Your task to perform on an android device: turn off smart reply in the gmail app Image 0: 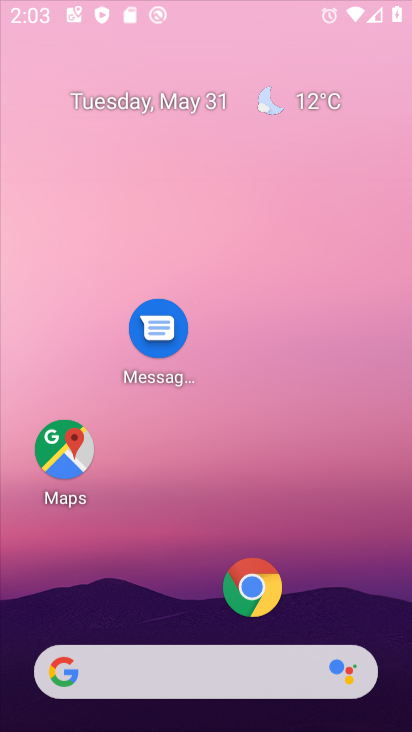
Step 0: click (225, 29)
Your task to perform on an android device: turn off smart reply in the gmail app Image 1: 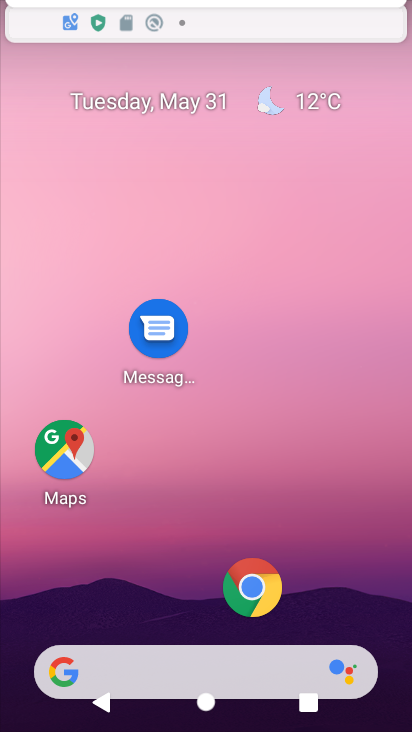
Step 1: drag from (182, 593) to (175, 150)
Your task to perform on an android device: turn off smart reply in the gmail app Image 2: 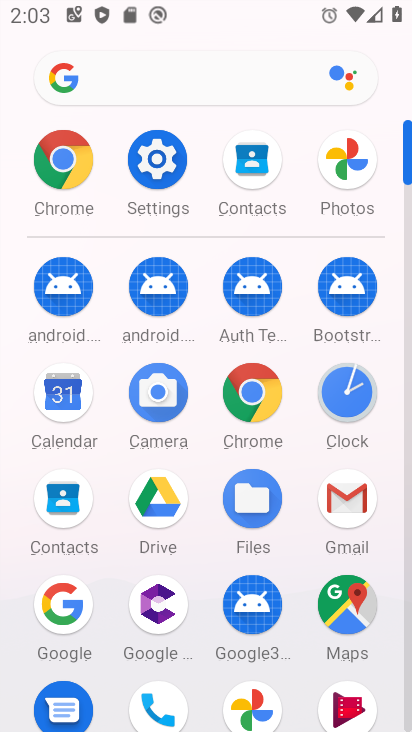
Step 2: click (342, 483)
Your task to perform on an android device: turn off smart reply in the gmail app Image 3: 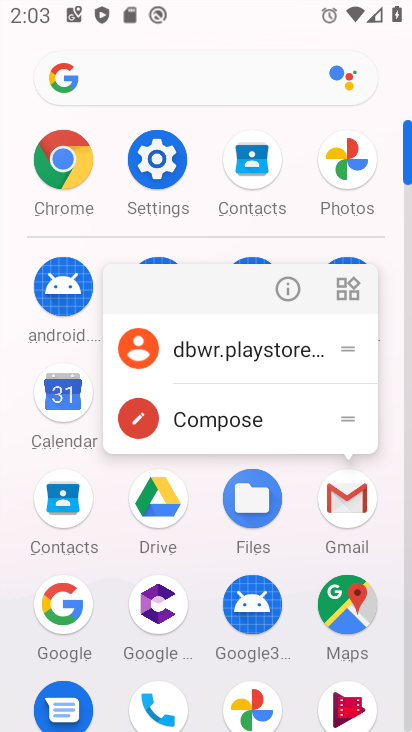
Step 3: click (290, 290)
Your task to perform on an android device: turn off smart reply in the gmail app Image 4: 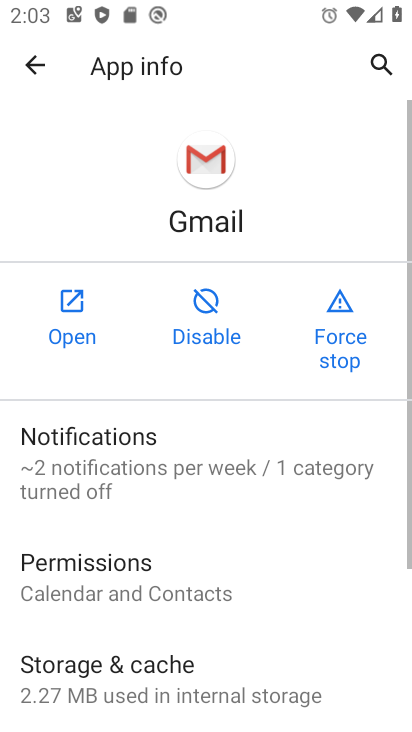
Step 4: click (71, 296)
Your task to perform on an android device: turn off smart reply in the gmail app Image 5: 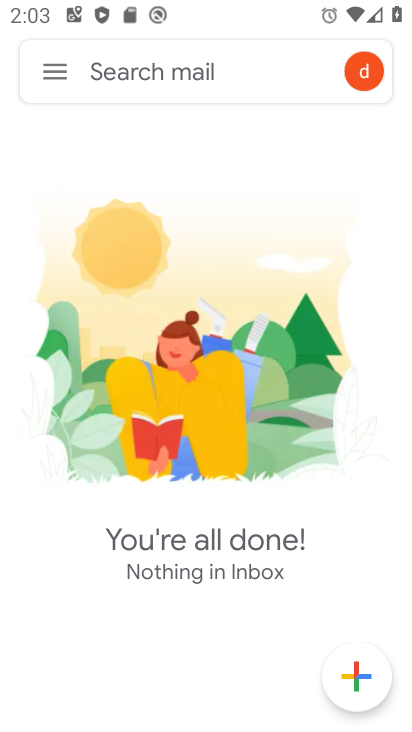
Step 5: click (51, 65)
Your task to perform on an android device: turn off smart reply in the gmail app Image 6: 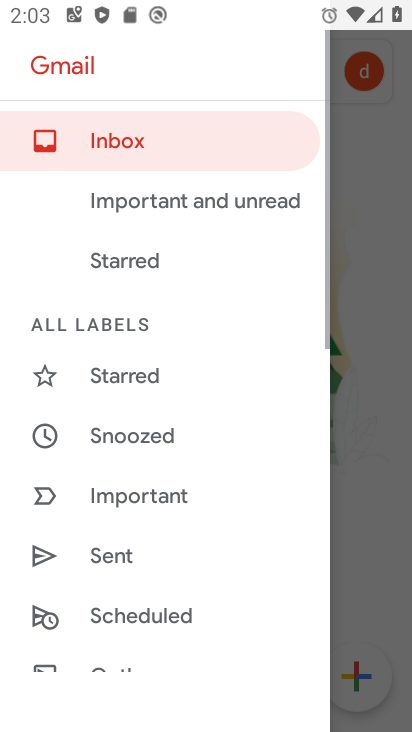
Step 6: drag from (169, 594) to (206, 67)
Your task to perform on an android device: turn off smart reply in the gmail app Image 7: 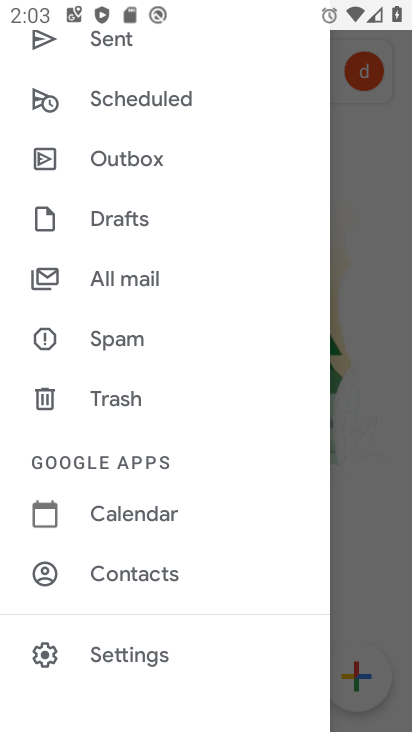
Step 7: drag from (118, 631) to (249, 138)
Your task to perform on an android device: turn off smart reply in the gmail app Image 8: 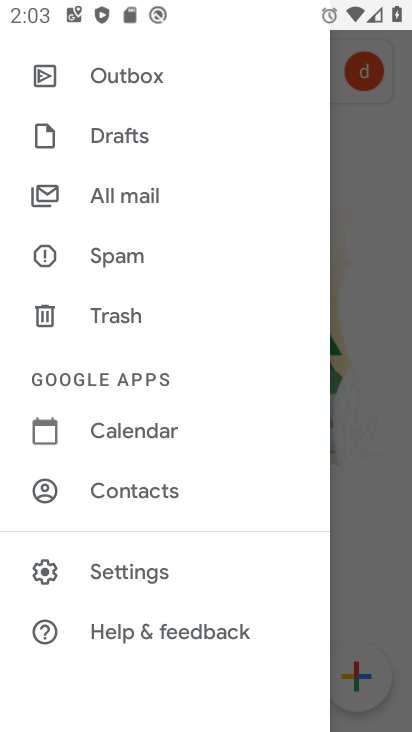
Step 8: click (130, 576)
Your task to perform on an android device: turn off smart reply in the gmail app Image 9: 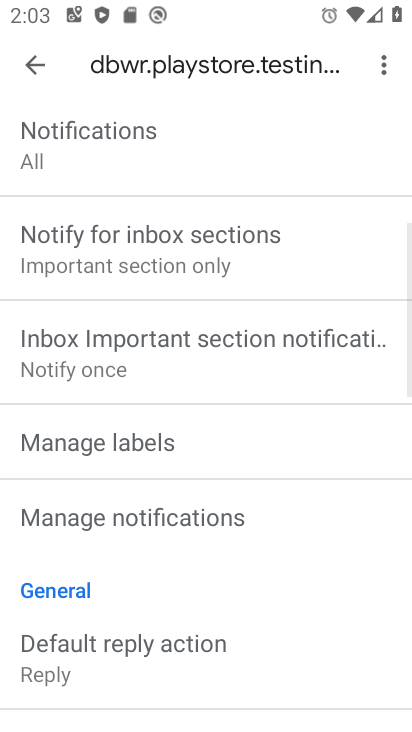
Step 9: drag from (119, 572) to (226, 107)
Your task to perform on an android device: turn off smart reply in the gmail app Image 10: 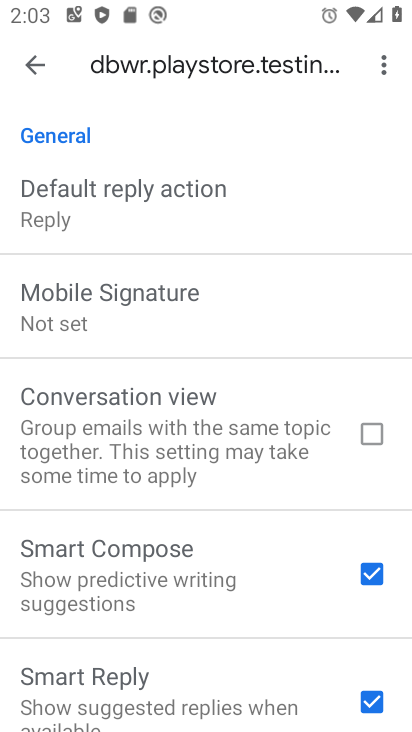
Step 10: drag from (169, 619) to (244, 239)
Your task to perform on an android device: turn off smart reply in the gmail app Image 11: 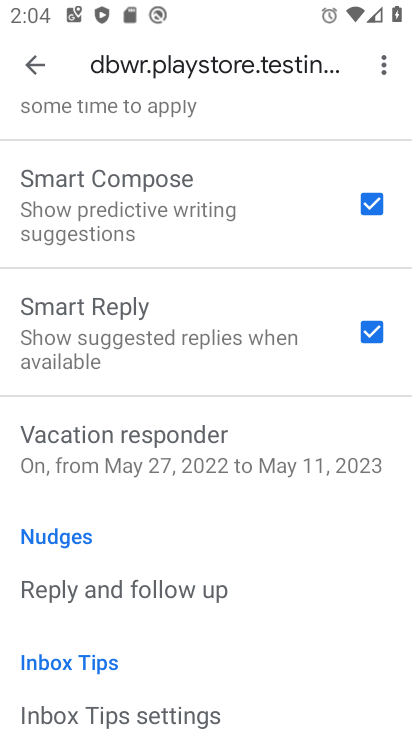
Step 11: click (365, 341)
Your task to perform on an android device: turn off smart reply in the gmail app Image 12: 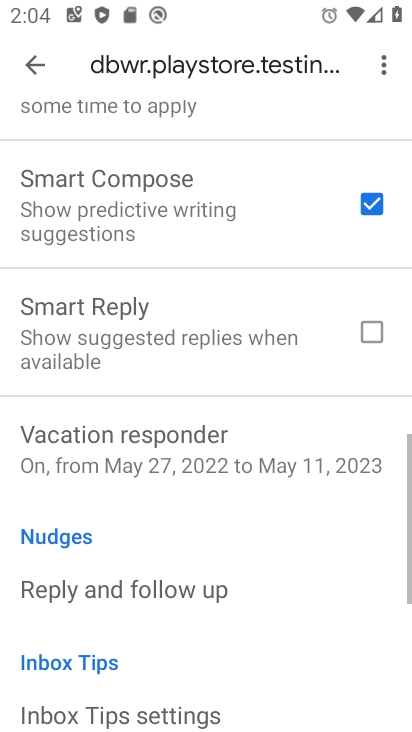
Step 12: task complete